Your task to perform on an android device: What's the weather today? Image 0: 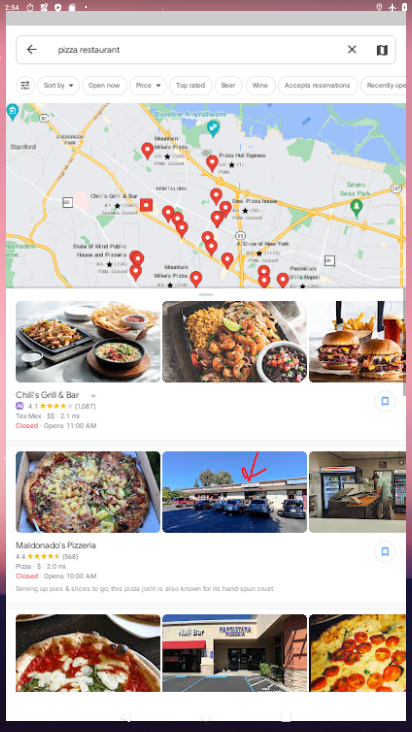
Step 0: drag from (138, 648) to (309, 4)
Your task to perform on an android device: What's the weather today? Image 1: 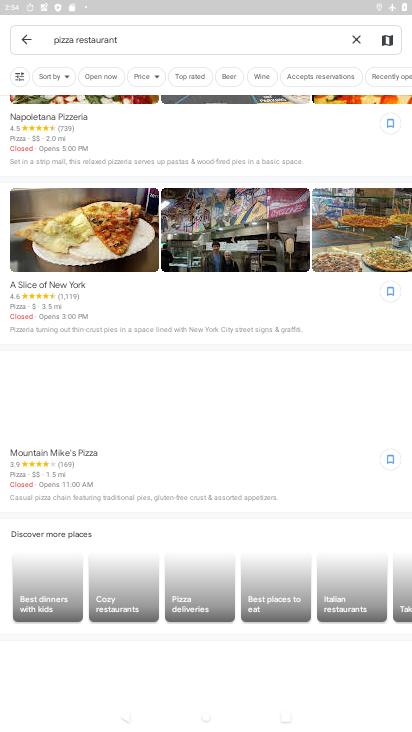
Step 1: press home button
Your task to perform on an android device: What's the weather today? Image 2: 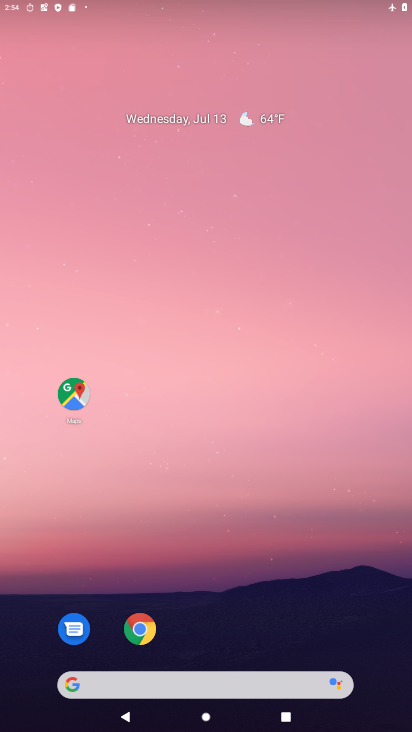
Step 2: drag from (151, 666) to (255, 4)
Your task to perform on an android device: What's the weather today? Image 3: 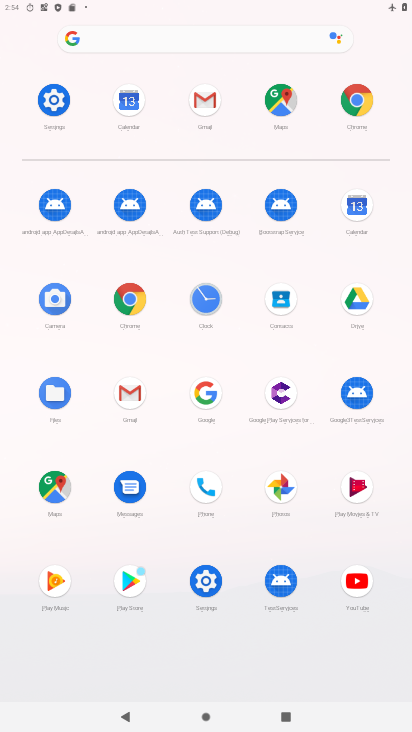
Step 3: click (131, 342)
Your task to perform on an android device: What's the weather today? Image 4: 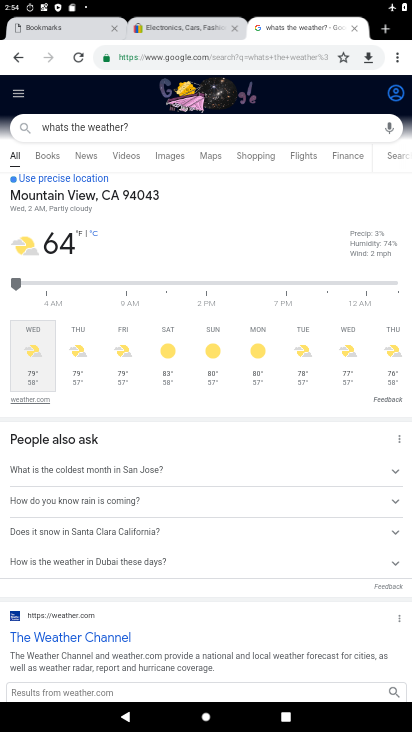
Step 4: task complete